Your task to perform on an android device: toggle notifications settings in the gmail app Image 0: 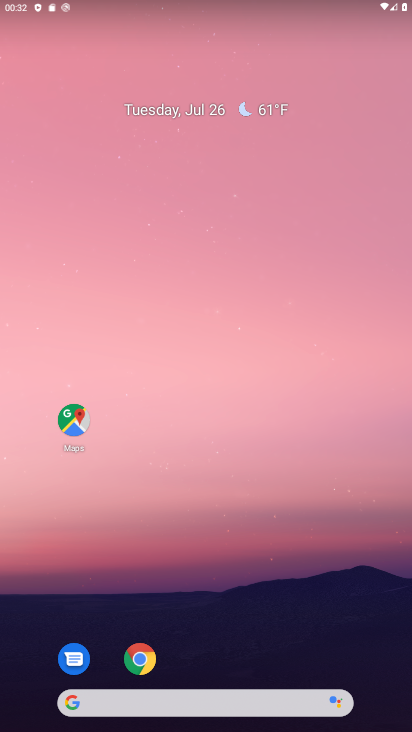
Step 0: drag from (278, 607) to (238, 55)
Your task to perform on an android device: toggle notifications settings in the gmail app Image 1: 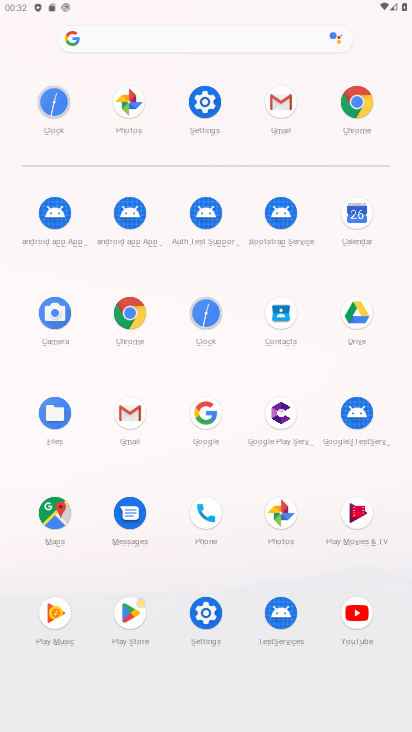
Step 1: click (278, 99)
Your task to perform on an android device: toggle notifications settings in the gmail app Image 2: 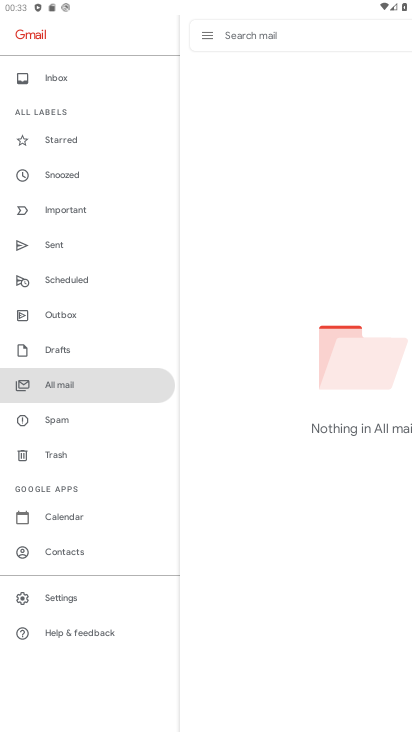
Step 2: click (70, 595)
Your task to perform on an android device: toggle notifications settings in the gmail app Image 3: 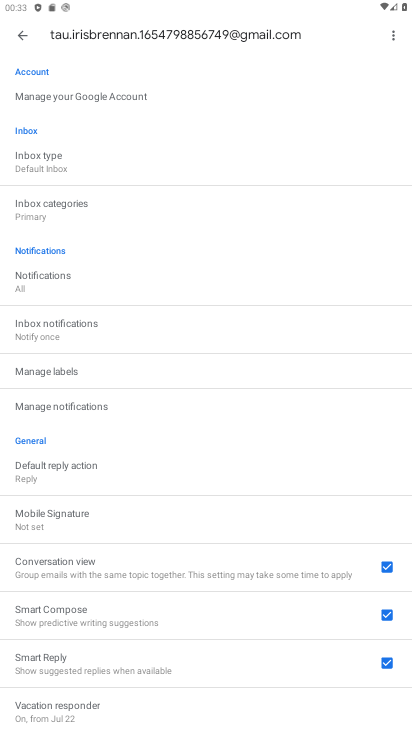
Step 3: click (52, 403)
Your task to perform on an android device: toggle notifications settings in the gmail app Image 4: 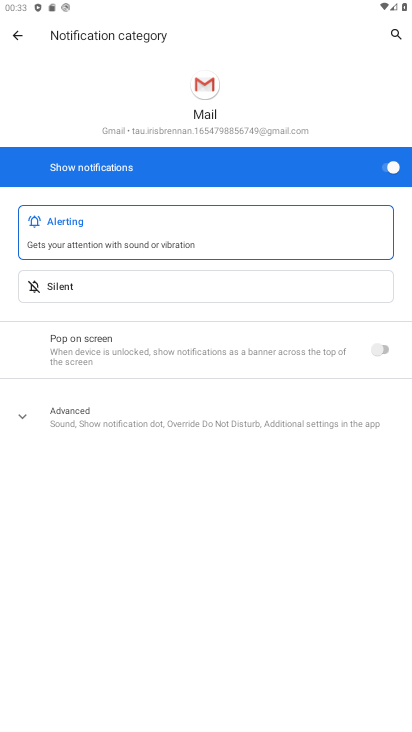
Step 4: click (382, 168)
Your task to perform on an android device: toggle notifications settings in the gmail app Image 5: 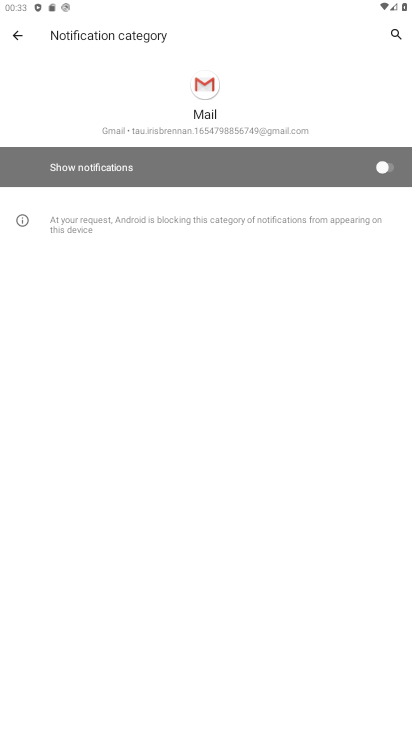
Step 5: task complete